Your task to perform on an android device: toggle priority inbox in the gmail app Image 0: 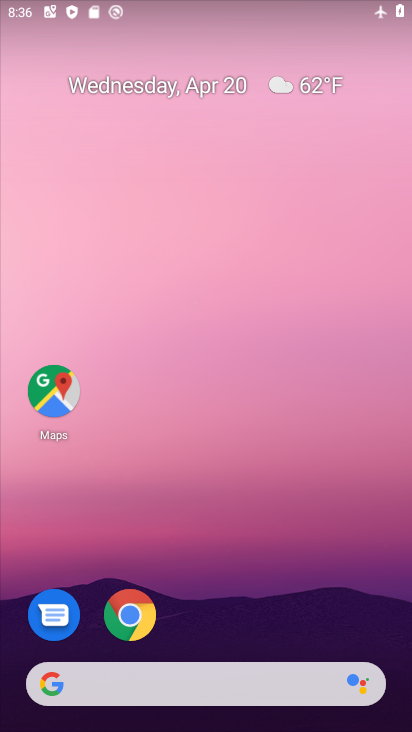
Step 0: drag from (148, 610) to (299, 100)
Your task to perform on an android device: toggle priority inbox in the gmail app Image 1: 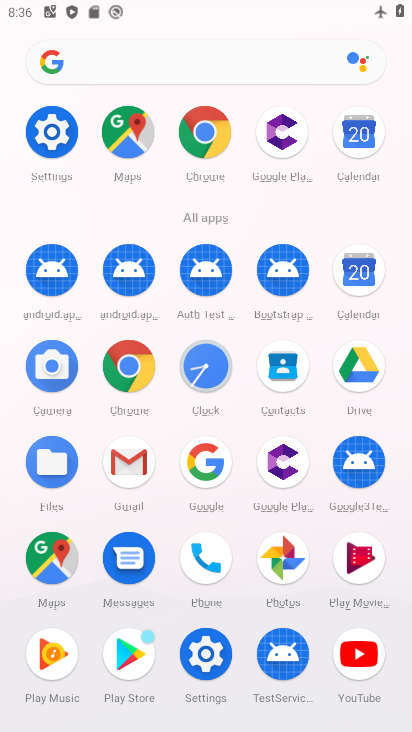
Step 1: click (129, 472)
Your task to perform on an android device: toggle priority inbox in the gmail app Image 2: 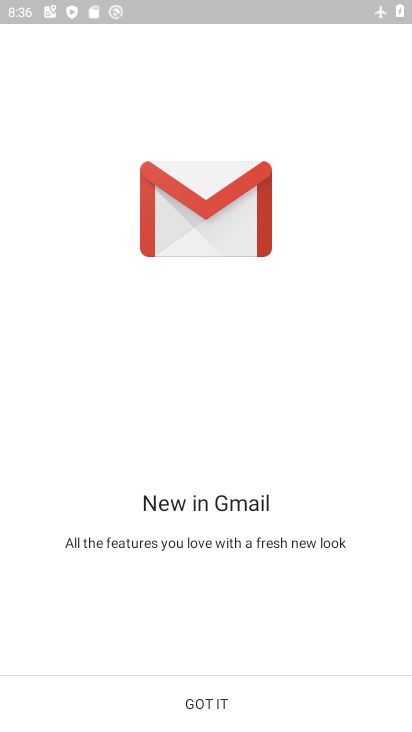
Step 2: click (213, 695)
Your task to perform on an android device: toggle priority inbox in the gmail app Image 3: 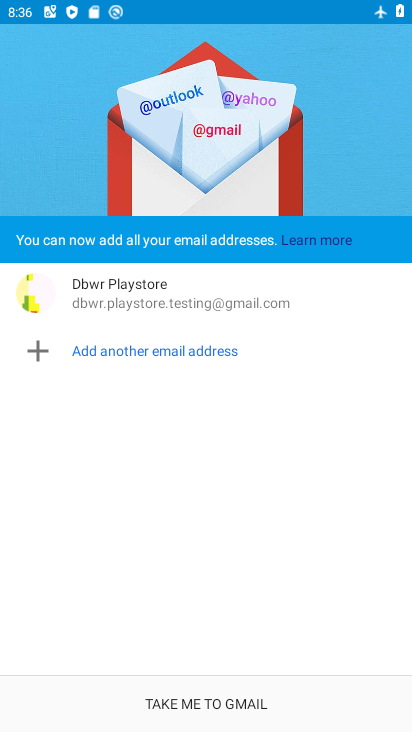
Step 3: click (213, 695)
Your task to perform on an android device: toggle priority inbox in the gmail app Image 4: 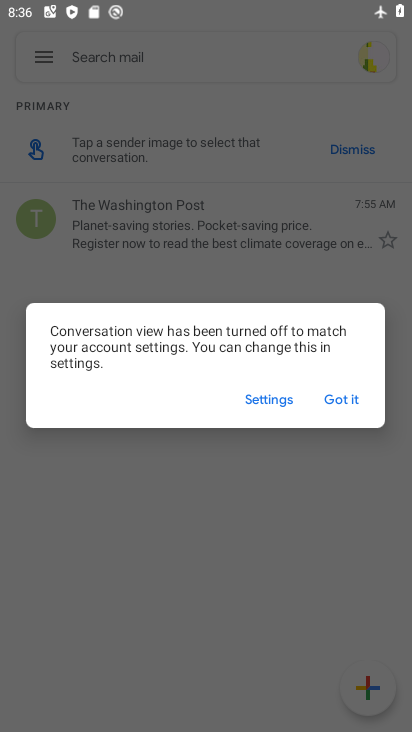
Step 4: click (343, 399)
Your task to perform on an android device: toggle priority inbox in the gmail app Image 5: 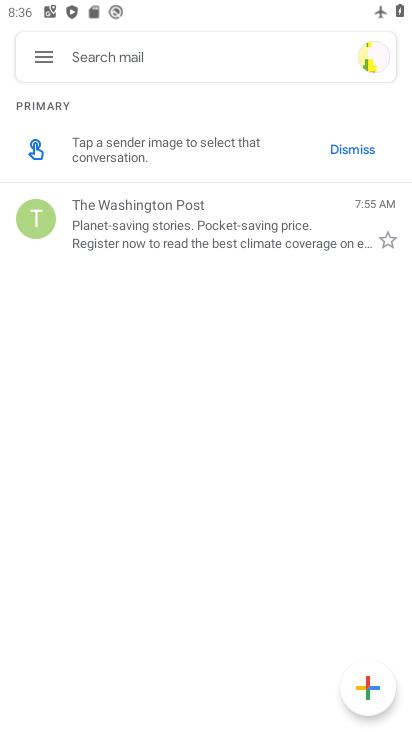
Step 5: click (38, 59)
Your task to perform on an android device: toggle priority inbox in the gmail app Image 6: 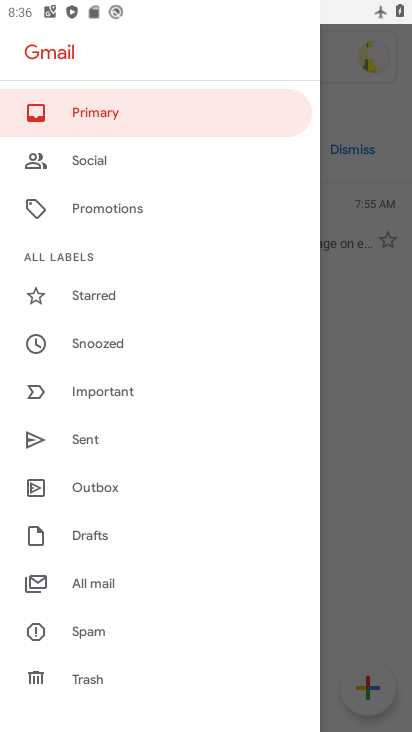
Step 6: drag from (122, 641) to (255, 189)
Your task to perform on an android device: toggle priority inbox in the gmail app Image 7: 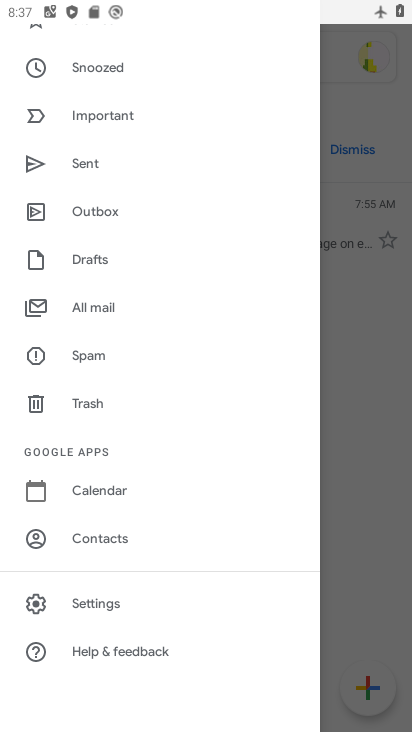
Step 7: click (96, 608)
Your task to perform on an android device: toggle priority inbox in the gmail app Image 8: 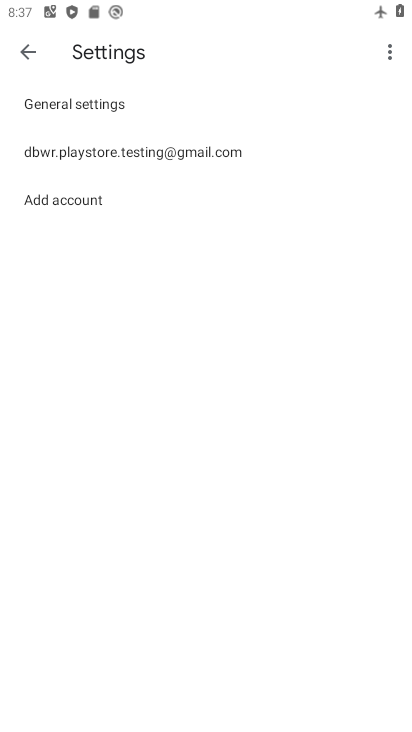
Step 8: click (135, 151)
Your task to perform on an android device: toggle priority inbox in the gmail app Image 9: 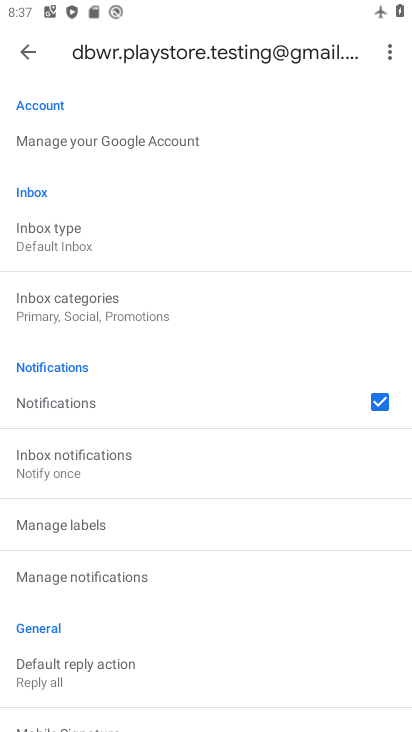
Step 9: click (62, 245)
Your task to perform on an android device: toggle priority inbox in the gmail app Image 10: 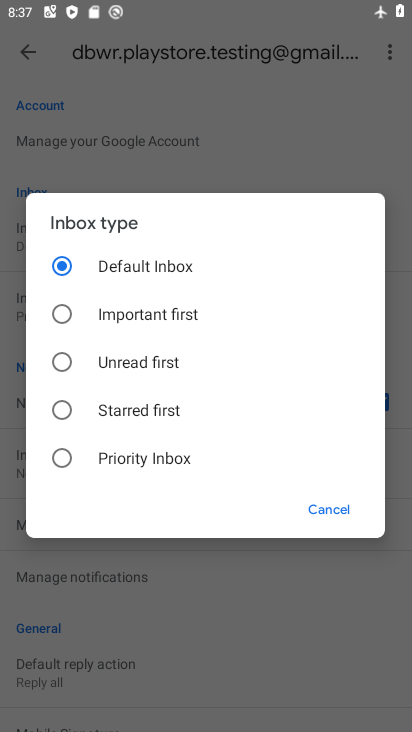
Step 10: click (66, 465)
Your task to perform on an android device: toggle priority inbox in the gmail app Image 11: 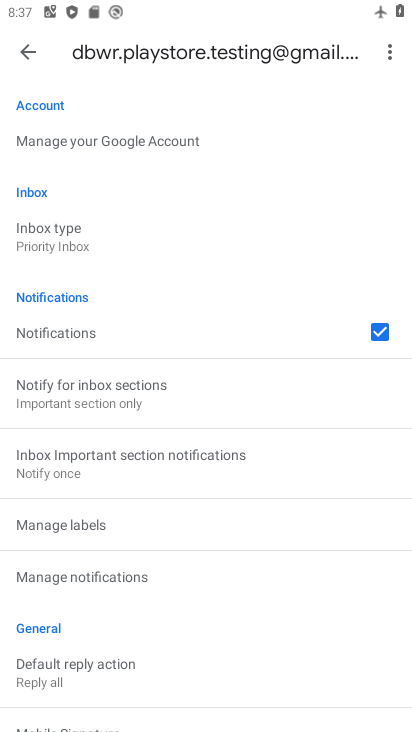
Step 11: task complete